Your task to perform on an android device: Open Wikipedia Image 0: 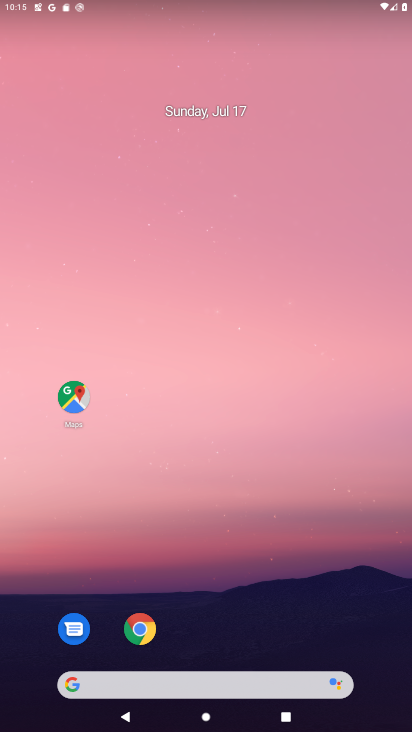
Step 0: click (139, 629)
Your task to perform on an android device: Open Wikipedia Image 1: 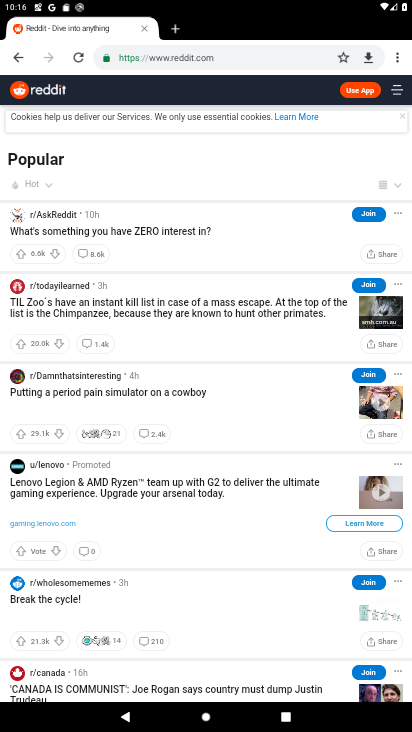
Step 1: click (271, 58)
Your task to perform on an android device: Open Wikipedia Image 2: 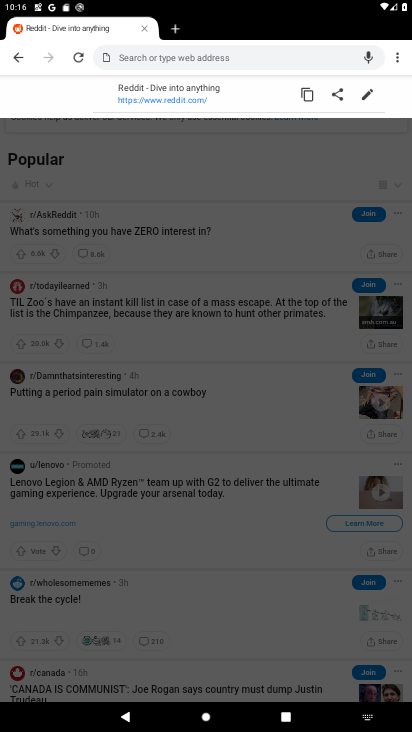
Step 2: type "Wikipedia"
Your task to perform on an android device: Open Wikipedia Image 3: 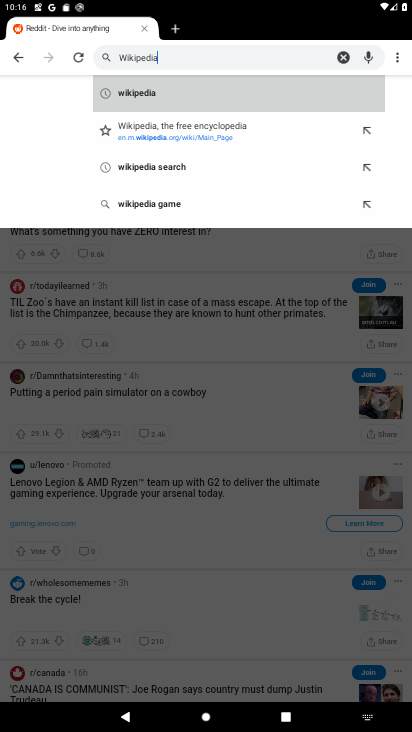
Step 3: click (220, 96)
Your task to perform on an android device: Open Wikipedia Image 4: 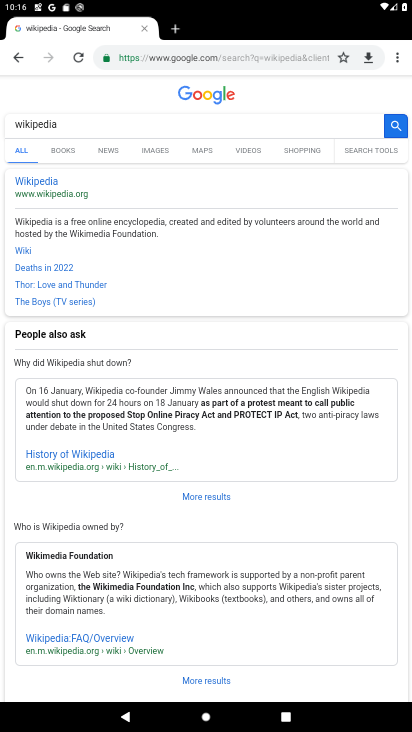
Step 4: click (82, 197)
Your task to perform on an android device: Open Wikipedia Image 5: 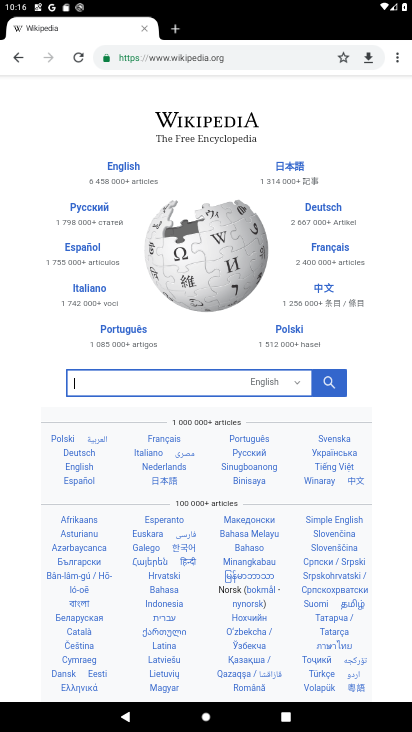
Step 5: task complete